Your task to perform on an android device: turn off wifi Image 0: 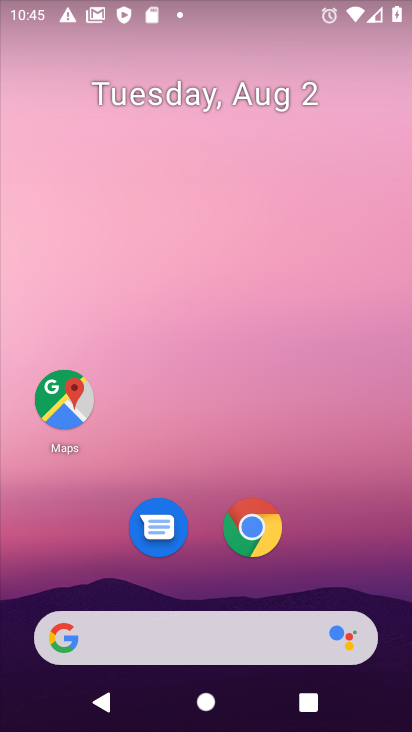
Step 0: press home button
Your task to perform on an android device: turn off wifi Image 1: 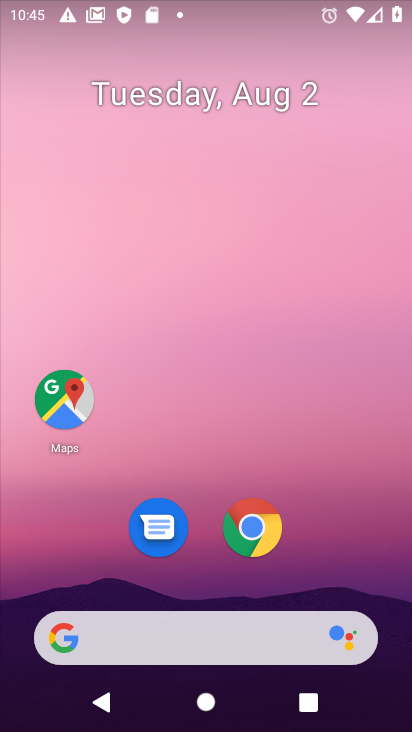
Step 1: drag from (251, 4) to (259, 406)
Your task to perform on an android device: turn off wifi Image 2: 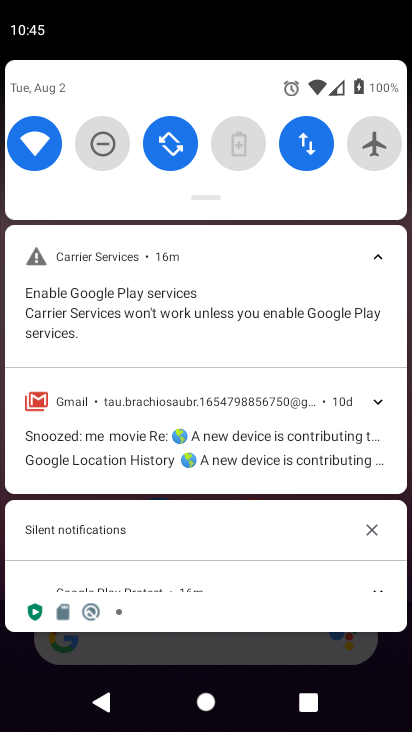
Step 2: click (35, 150)
Your task to perform on an android device: turn off wifi Image 3: 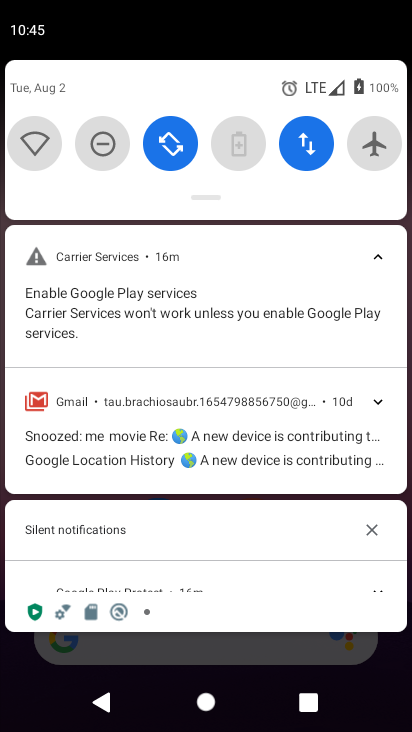
Step 3: task complete